Your task to perform on an android device: When is my next appointment? Image 0: 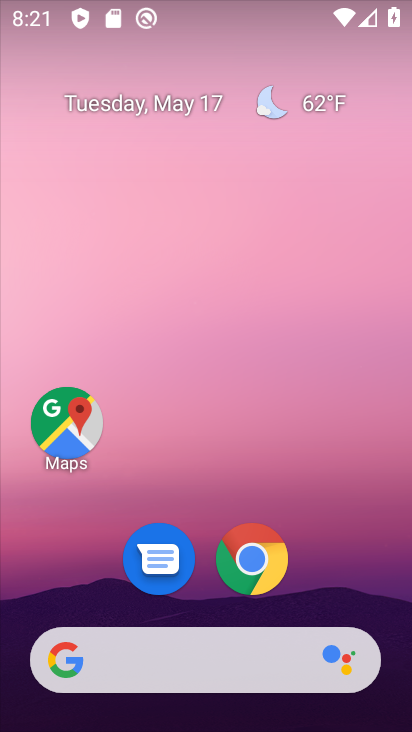
Step 0: drag from (196, 647) to (313, 89)
Your task to perform on an android device: When is my next appointment? Image 1: 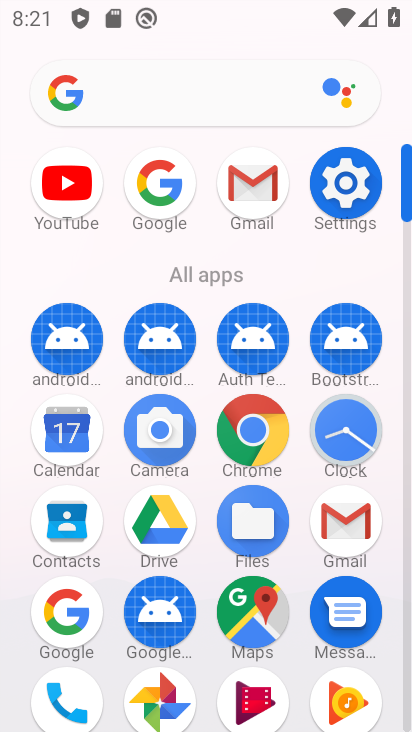
Step 1: click (50, 432)
Your task to perform on an android device: When is my next appointment? Image 2: 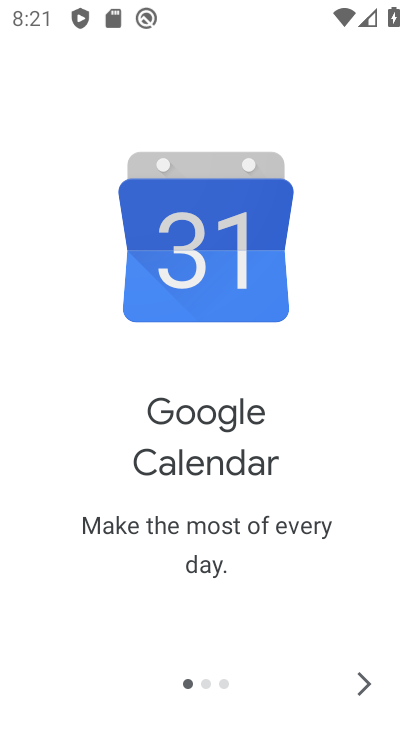
Step 2: click (363, 689)
Your task to perform on an android device: When is my next appointment? Image 3: 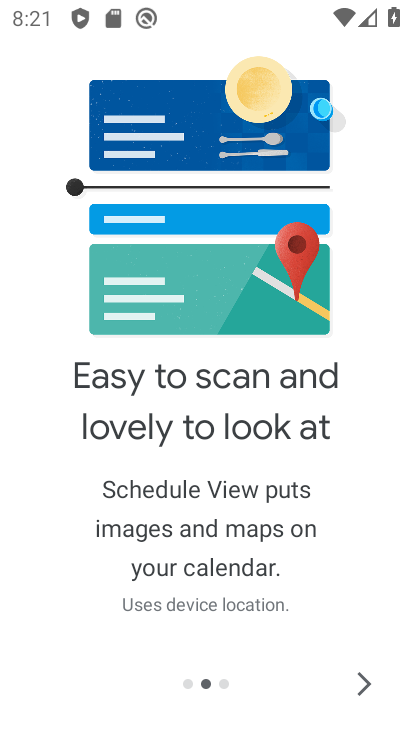
Step 3: click (363, 689)
Your task to perform on an android device: When is my next appointment? Image 4: 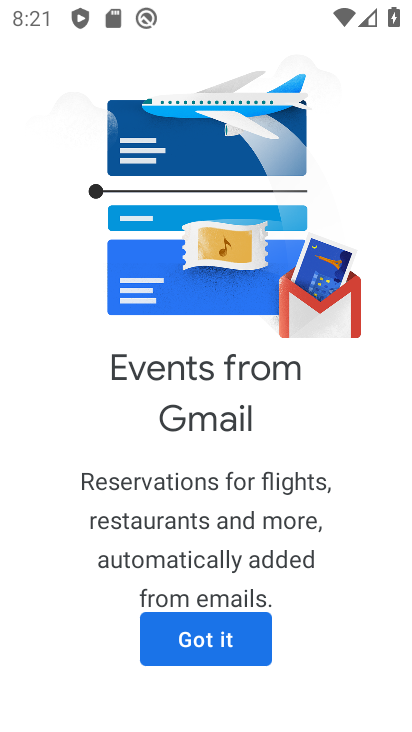
Step 4: click (363, 689)
Your task to perform on an android device: When is my next appointment? Image 5: 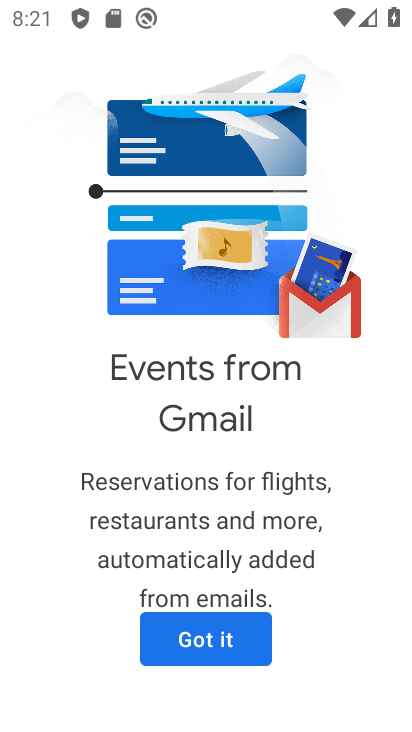
Step 5: click (180, 639)
Your task to perform on an android device: When is my next appointment? Image 6: 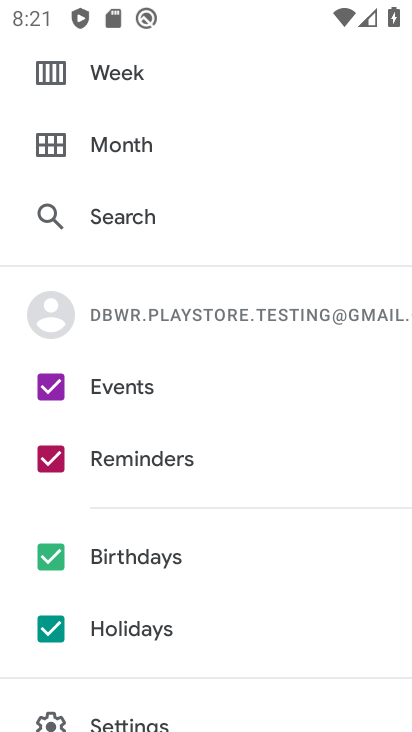
Step 6: drag from (191, 169) to (283, 731)
Your task to perform on an android device: When is my next appointment? Image 7: 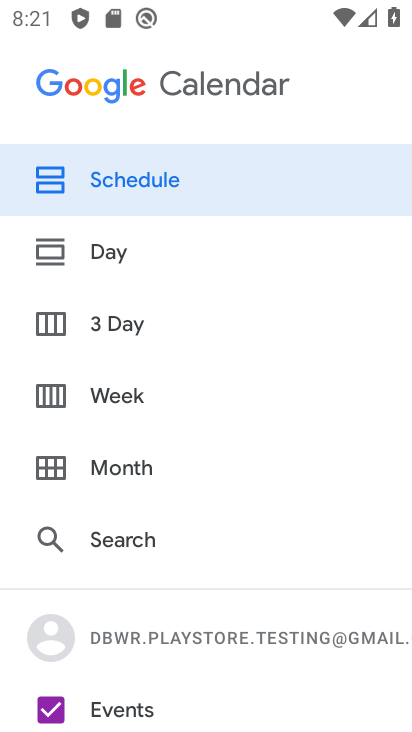
Step 7: click (167, 198)
Your task to perform on an android device: When is my next appointment? Image 8: 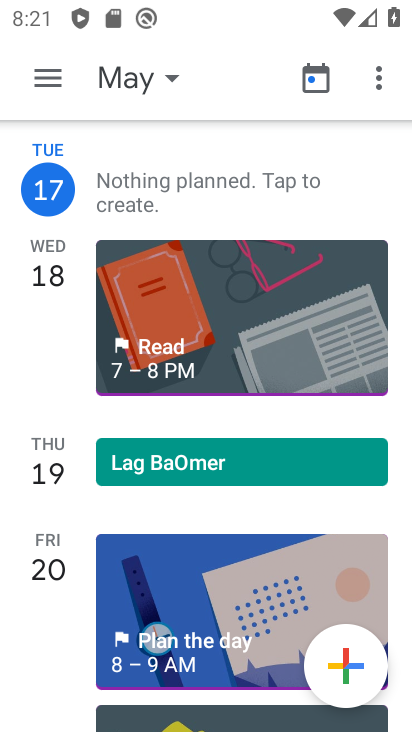
Step 8: task complete